Your task to perform on an android device: Open Yahoo.com Image 0: 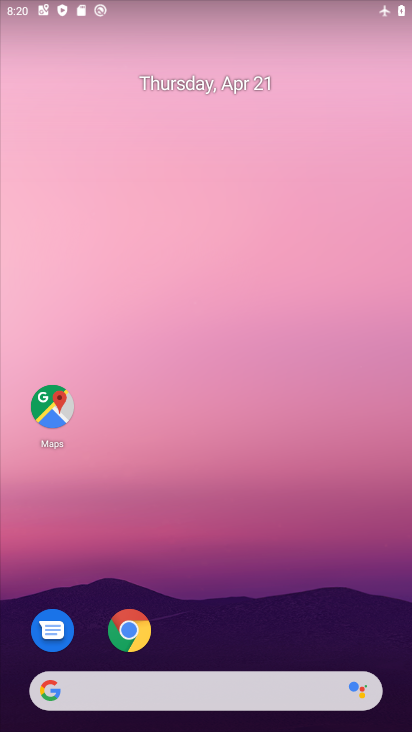
Step 0: click (337, 343)
Your task to perform on an android device: Open Yahoo.com Image 1: 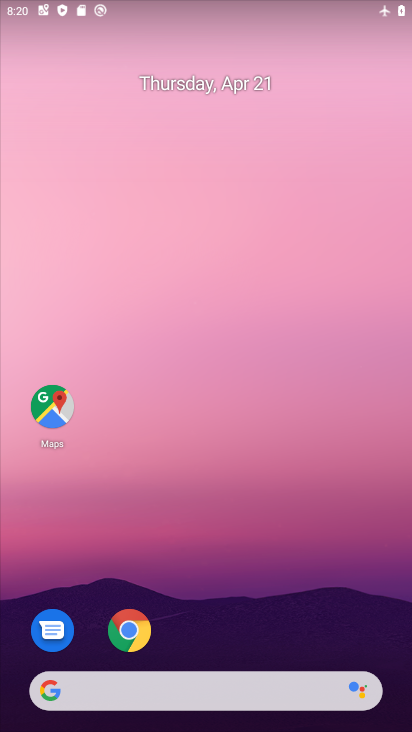
Step 1: click (136, 621)
Your task to perform on an android device: Open Yahoo.com Image 2: 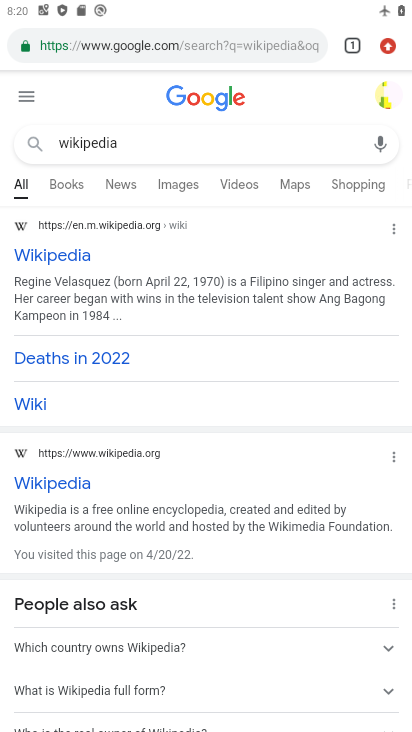
Step 2: click (160, 40)
Your task to perform on an android device: Open Yahoo.com Image 3: 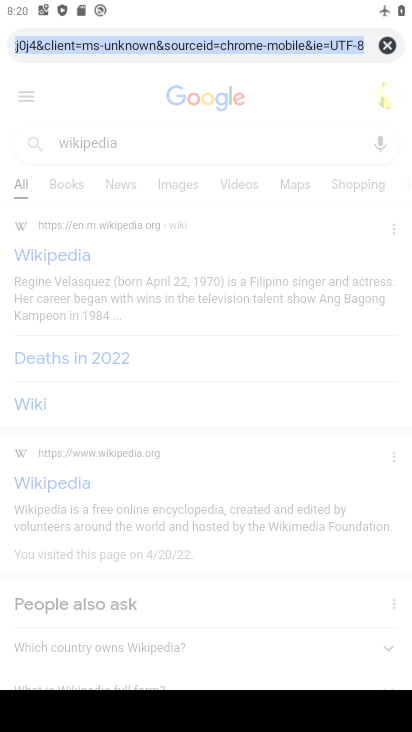
Step 3: type "yahoo.com"
Your task to perform on an android device: Open Yahoo.com Image 4: 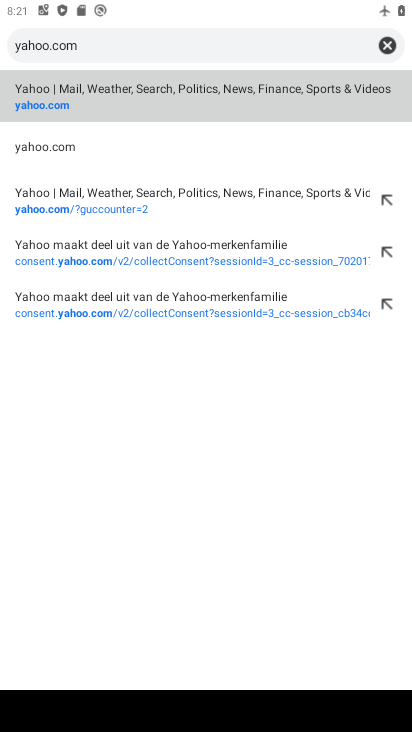
Step 4: click (88, 186)
Your task to perform on an android device: Open Yahoo.com Image 5: 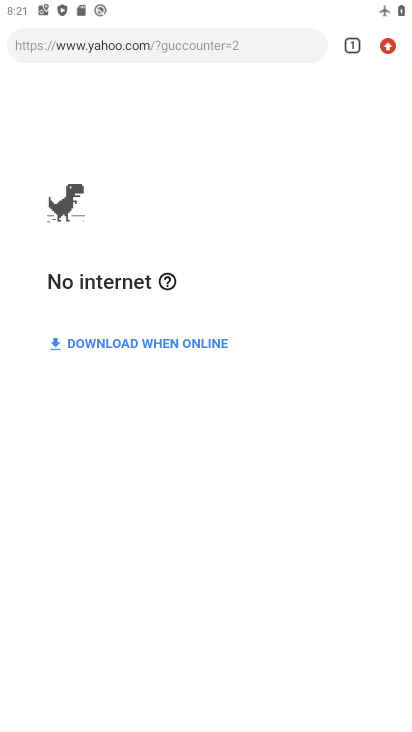
Step 5: task complete